Your task to perform on an android device: Open Yahoo.com Image 0: 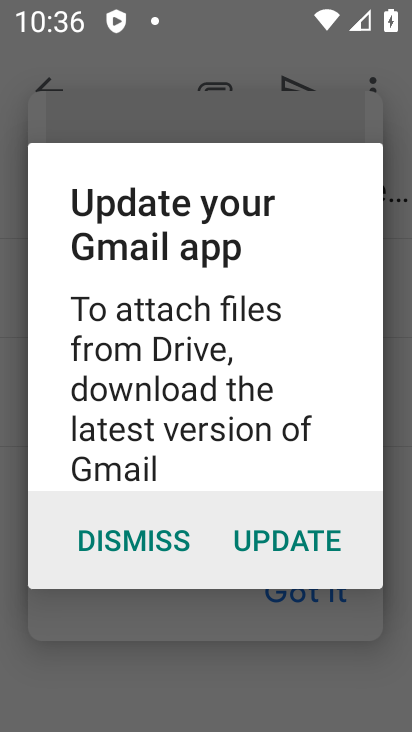
Step 0: press home button
Your task to perform on an android device: Open Yahoo.com Image 1: 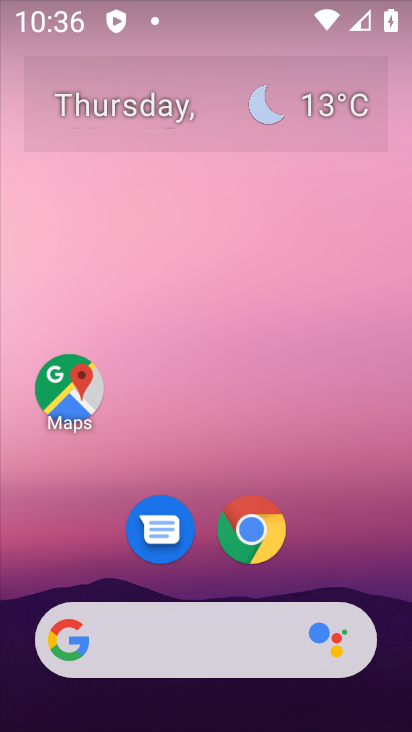
Step 1: click (241, 526)
Your task to perform on an android device: Open Yahoo.com Image 2: 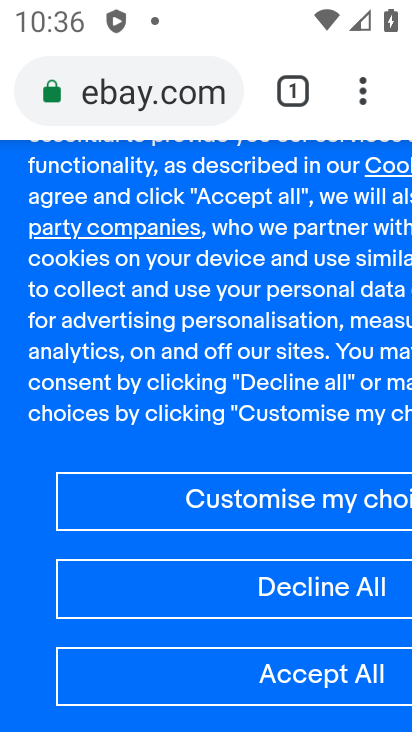
Step 2: click (140, 98)
Your task to perform on an android device: Open Yahoo.com Image 3: 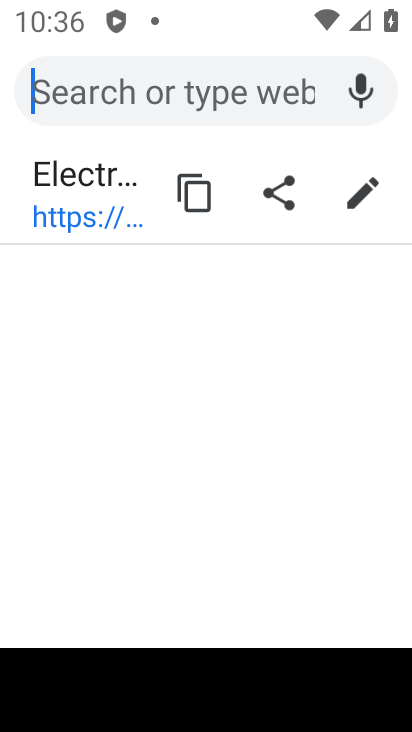
Step 3: type "yahoo.com"
Your task to perform on an android device: Open Yahoo.com Image 4: 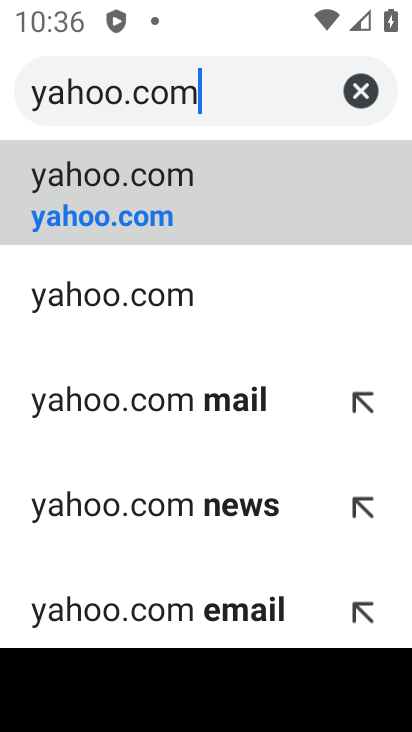
Step 4: click (39, 209)
Your task to perform on an android device: Open Yahoo.com Image 5: 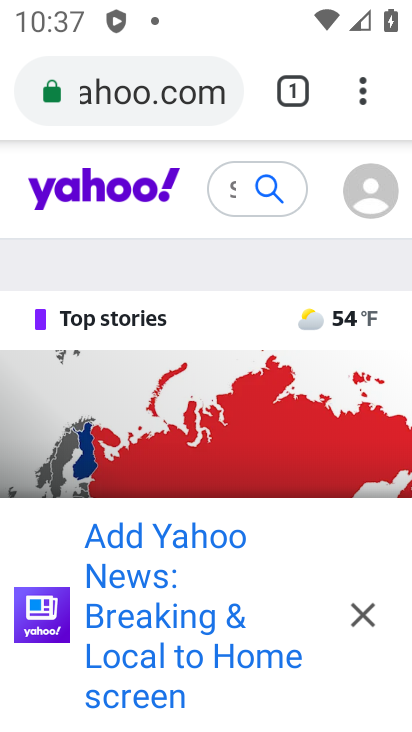
Step 5: task complete